Your task to perform on an android device: turn off wifi Image 0: 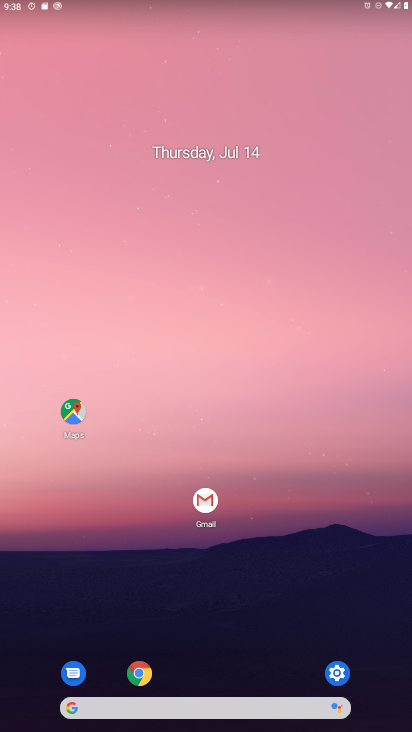
Step 0: press home button
Your task to perform on an android device: turn off wifi Image 1: 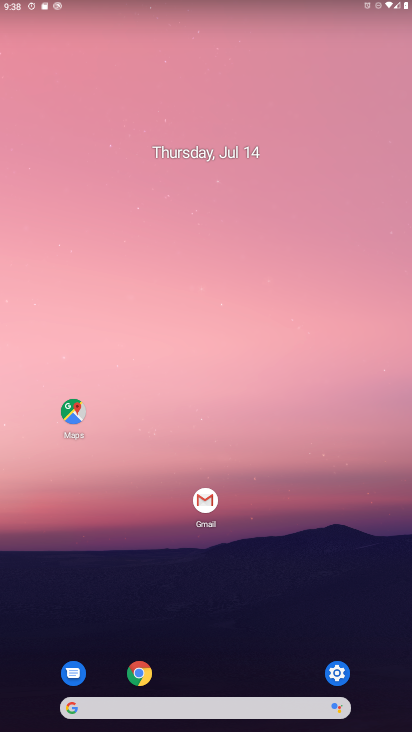
Step 1: click (332, 666)
Your task to perform on an android device: turn off wifi Image 2: 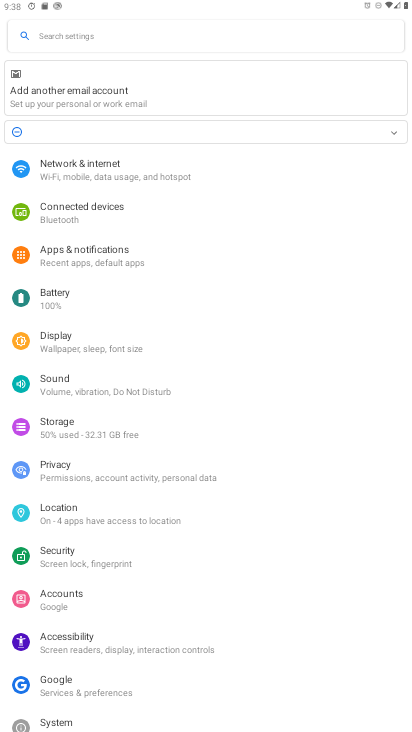
Step 2: click (112, 167)
Your task to perform on an android device: turn off wifi Image 3: 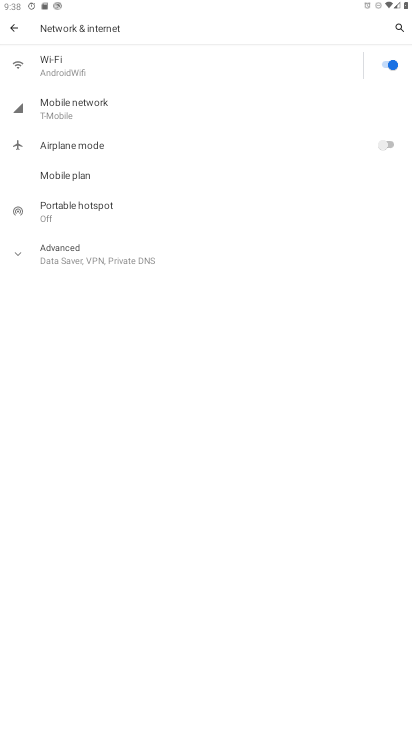
Step 3: click (94, 74)
Your task to perform on an android device: turn off wifi Image 4: 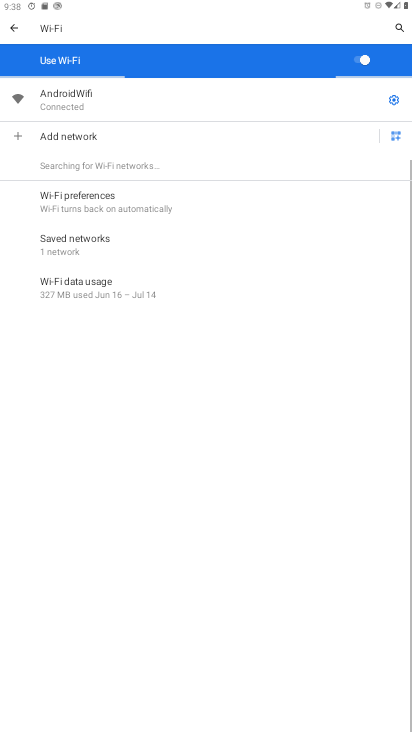
Step 4: click (357, 61)
Your task to perform on an android device: turn off wifi Image 5: 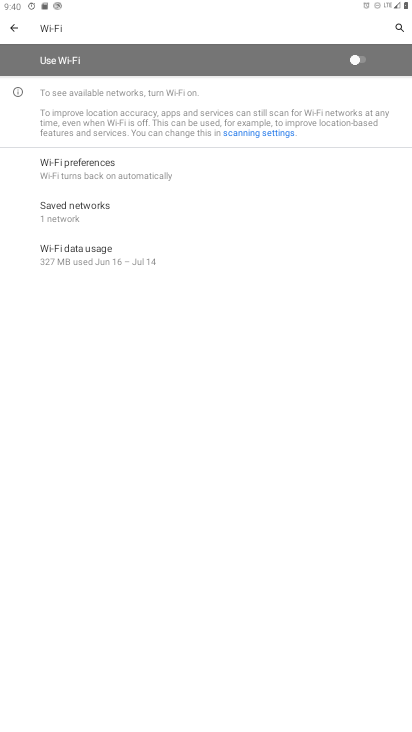
Step 5: task complete